Your task to perform on an android device: toggle translation in the chrome app Image 0: 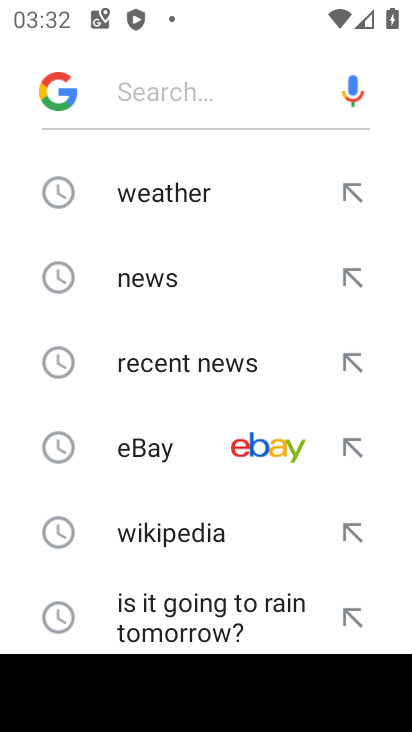
Step 0: press home button
Your task to perform on an android device: toggle translation in the chrome app Image 1: 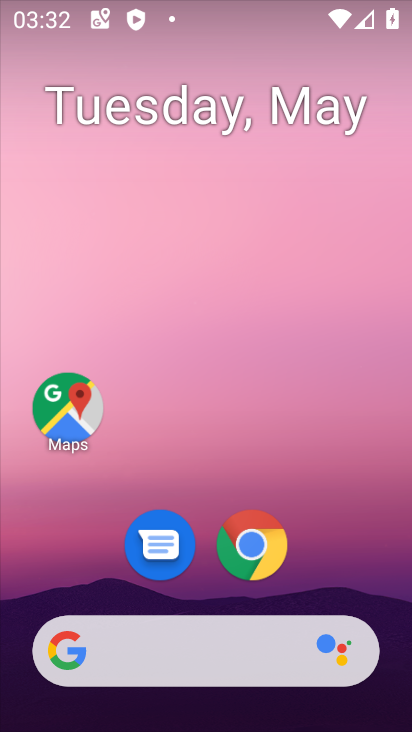
Step 1: click (248, 547)
Your task to perform on an android device: toggle translation in the chrome app Image 2: 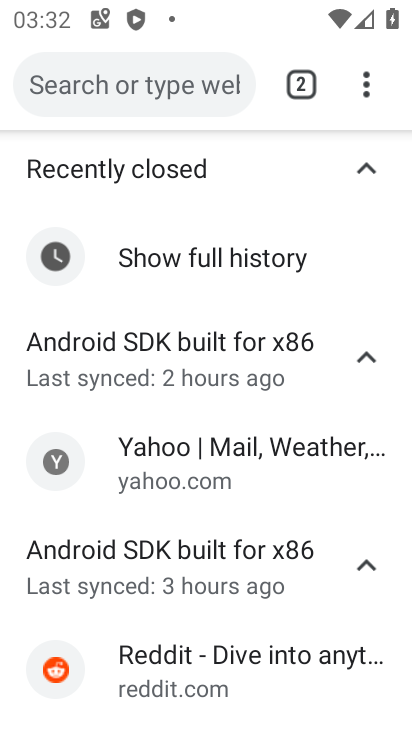
Step 2: click (364, 95)
Your task to perform on an android device: toggle translation in the chrome app Image 3: 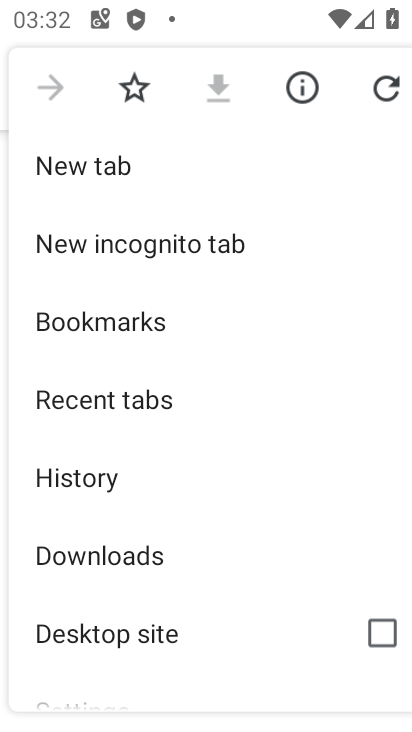
Step 3: drag from (268, 611) to (268, 255)
Your task to perform on an android device: toggle translation in the chrome app Image 4: 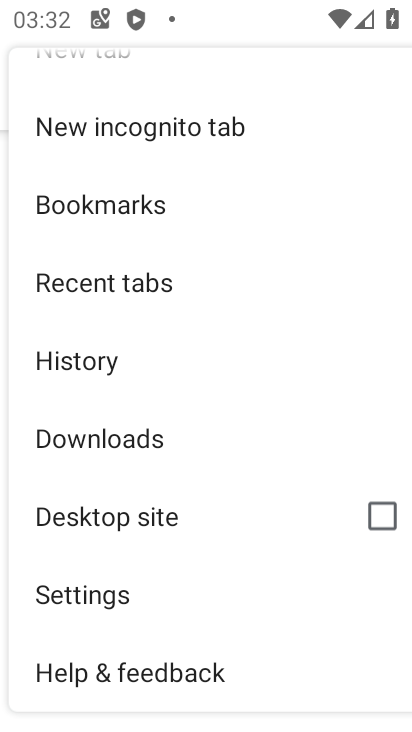
Step 4: click (98, 588)
Your task to perform on an android device: toggle translation in the chrome app Image 5: 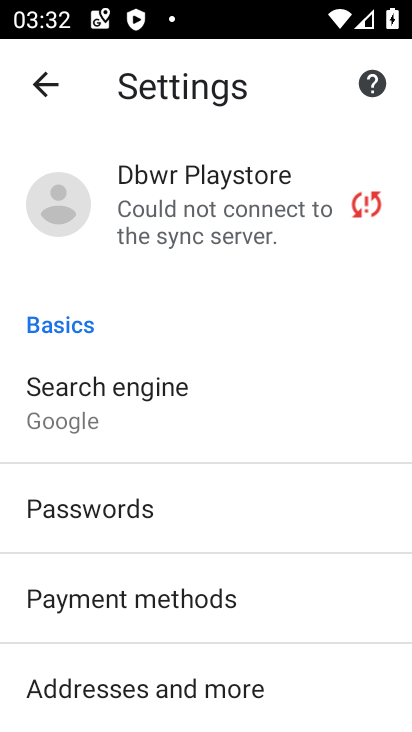
Step 5: drag from (290, 661) to (205, 212)
Your task to perform on an android device: toggle translation in the chrome app Image 6: 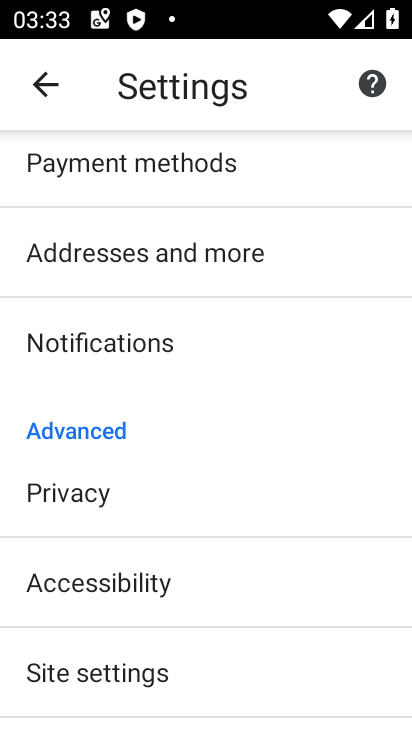
Step 6: drag from (263, 690) to (215, 271)
Your task to perform on an android device: toggle translation in the chrome app Image 7: 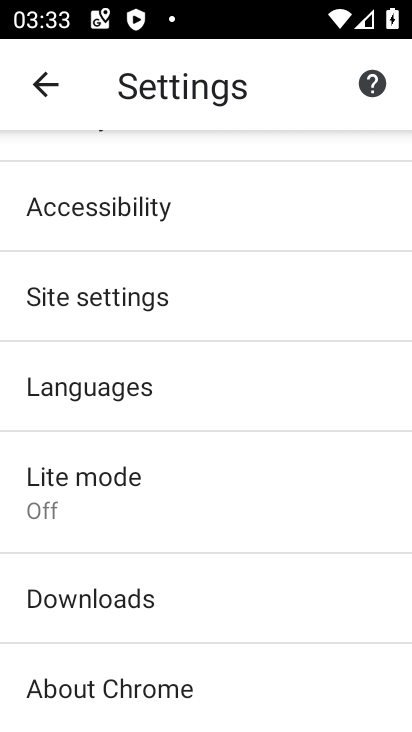
Step 7: click (75, 394)
Your task to perform on an android device: toggle translation in the chrome app Image 8: 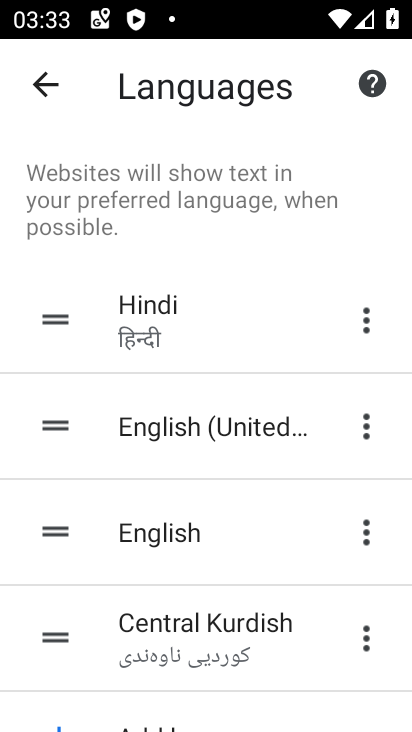
Step 8: drag from (331, 637) to (232, 197)
Your task to perform on an android device: toggle translation in the chrome app Image 9: 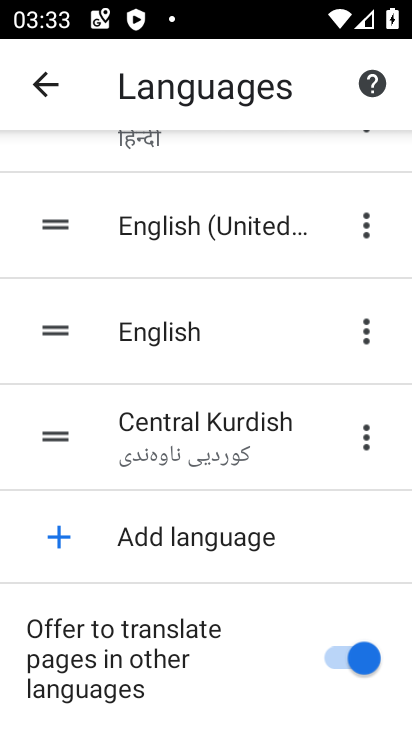
Step 9: click (328, 657)
Your task to perform on an android device: toggle translation in the chrome app Image 10: 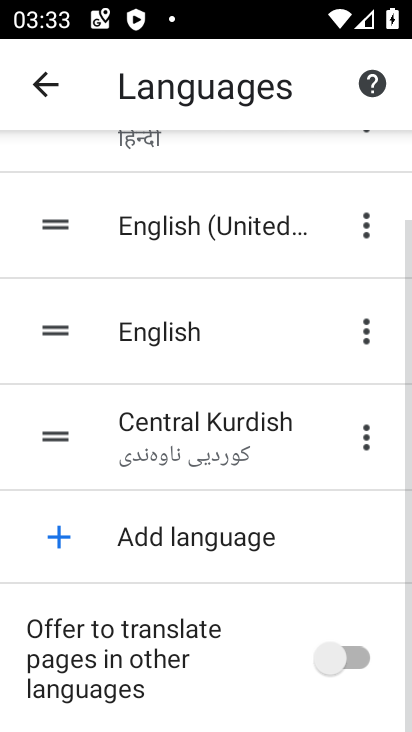
Step 10: task complete